Your task to perform on an android device: Turn on the flashlight Image 0: 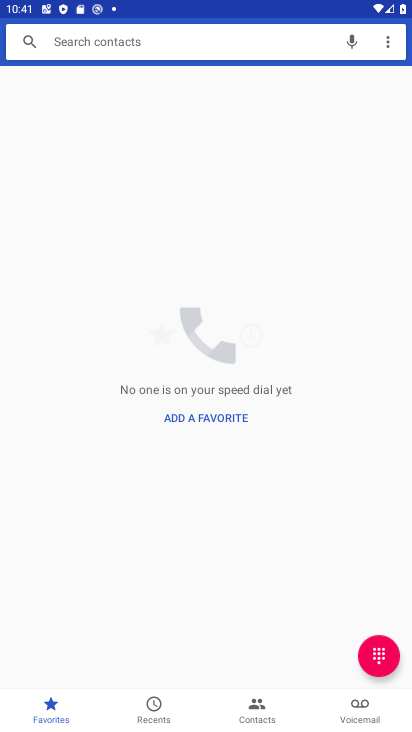
Step 0: drag from (167, 3) to (155, 390)
Your task to perform on an android device: Turn on the flashlight Image 1: 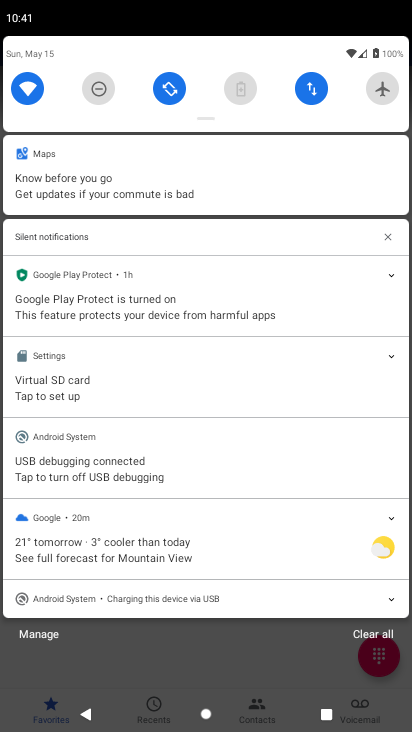
Step 1: drag from (136, 51) to (160, 457)
Your task to perform on an android device: Turn on the flashlight Image 2: 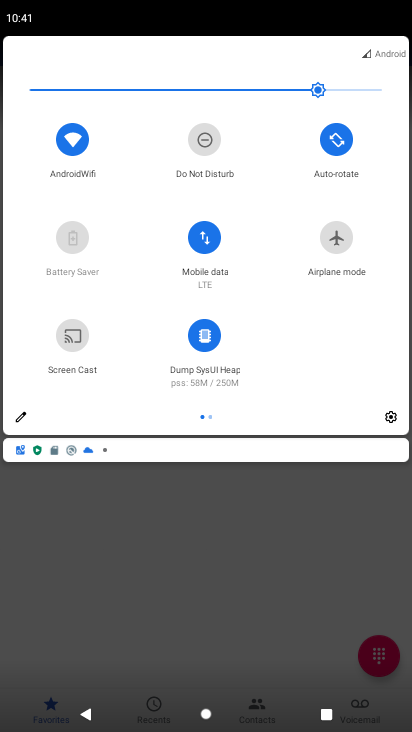
Step 2: drag from (78, 280) to (12, 317)
Your task to perform on an android device: Turn on the flashlight Image 3: 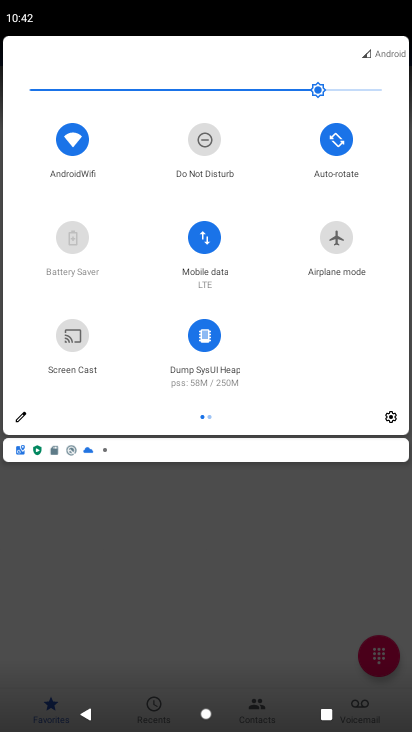
Step 3: drag from (199, 367) to (16, 412)
Your task to perform on an android device: Turn on the flashlight Image 4: 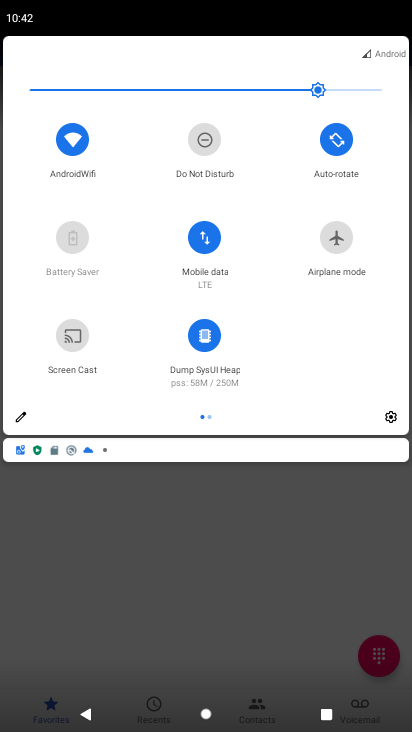
Step 4: drag from (354, 278) to (0, 283)
Your task to perform on an android device: Turn on the flashlight Image 5: 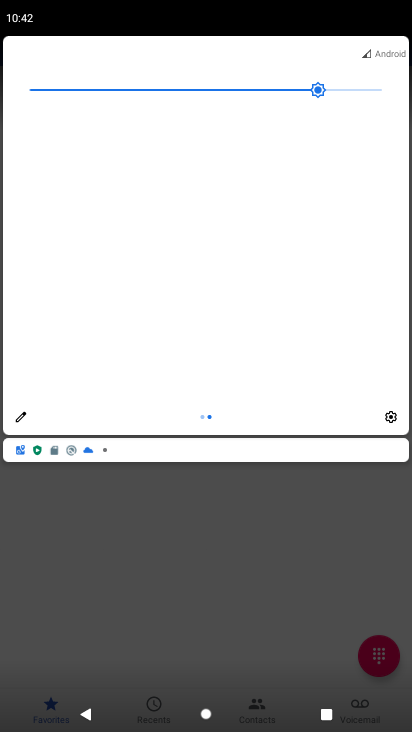
Step 5: click (15, 417)
Your task to perform on an android device: Turn on the flashlight Image 6: 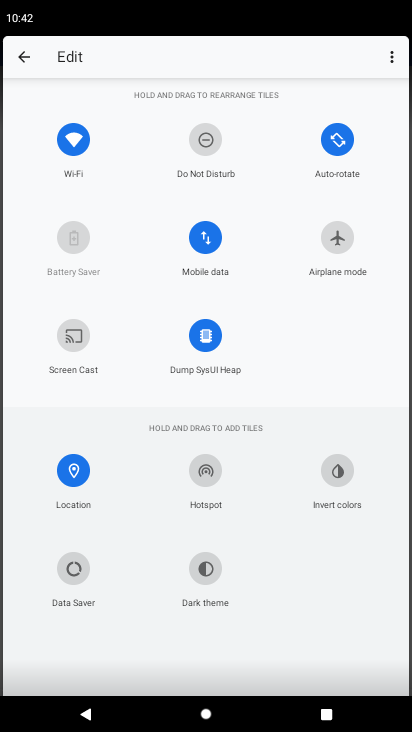
Step 6: task complete